Your task to perform on an android device: Open Google Maps and go to "Timeline" Image 0: 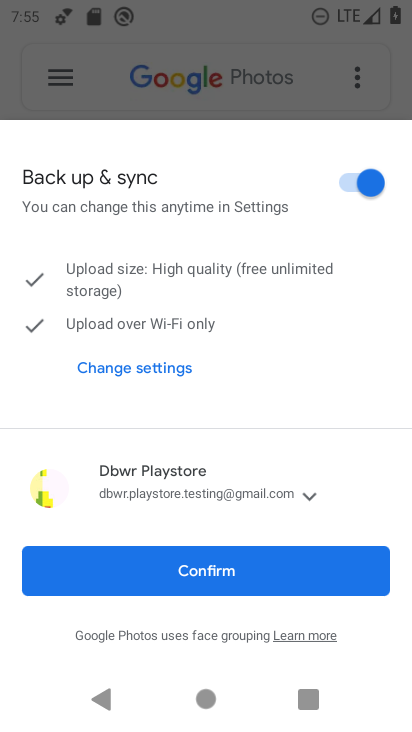
Step 0: click (303, 570)
Your task to perform on an android device: Open Google Maps and go to "Timeline" Image 1: 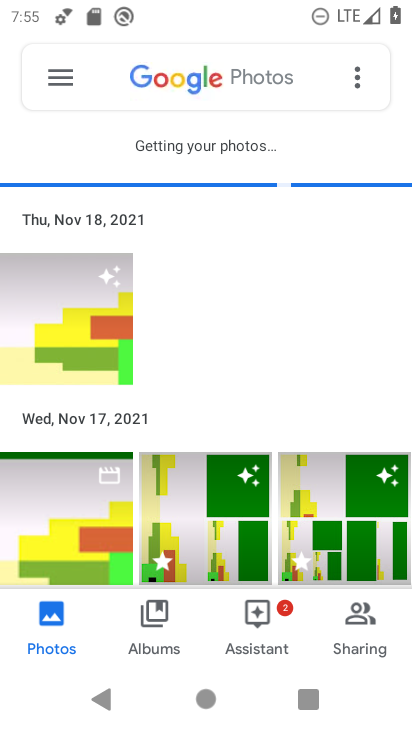
Step 1: press home button
Your task to perform on an android device: Open Google Maps and go to "Timeline" Image 2: 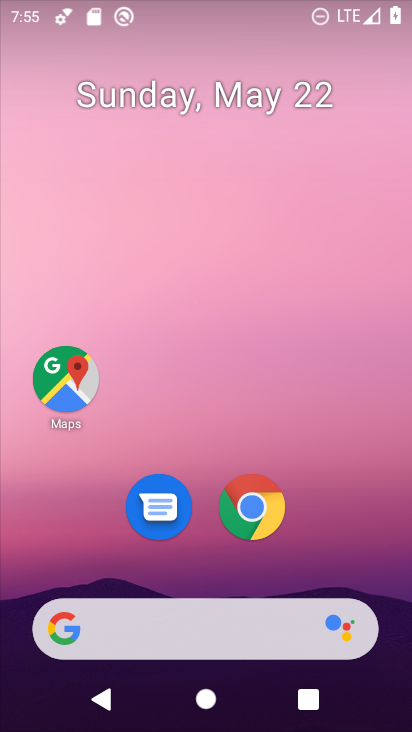
Step 2: click (55, 385)
Your task to perform on an android device: Open Google Maps and go to "Timeline" Image 3: 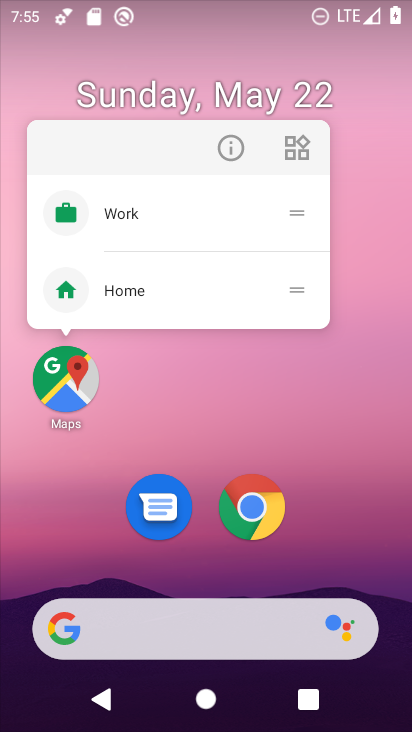
Step 3: click (72, 351)
Your task to perform on an android device: Open Google Maps and go to "Timeline" Image 4: 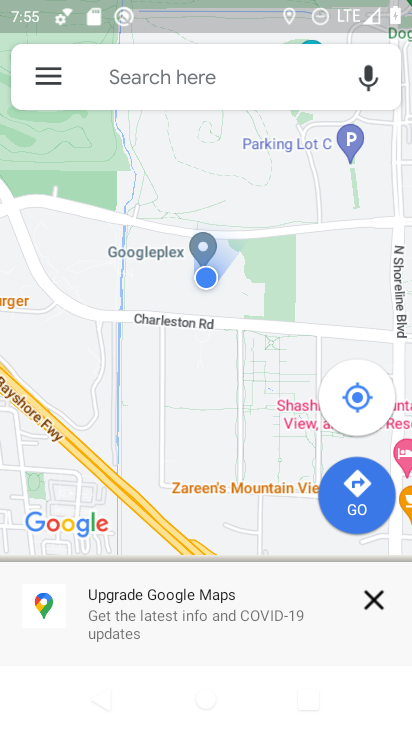
Step 4: click (51, 82)
Your task to perform on an android device: Open Google Maps and go to "Timeline" Image 5: 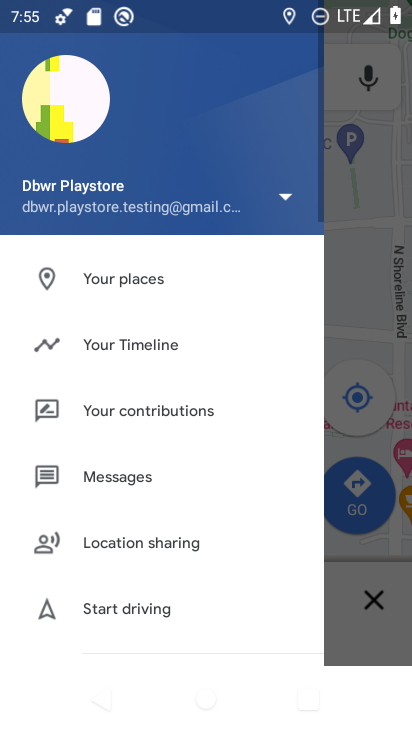
Step 5: click (97, 343)
Your task to perform on an android device: Open Google Maps and go to "Timeline" Image 6: 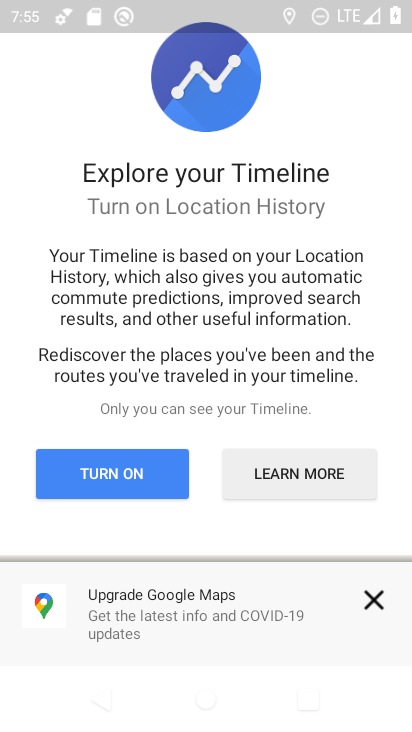
Step 6: click (370, 596)
Your task to perform on an android device: Open Google Maps and go to "Timeline" Image 7: 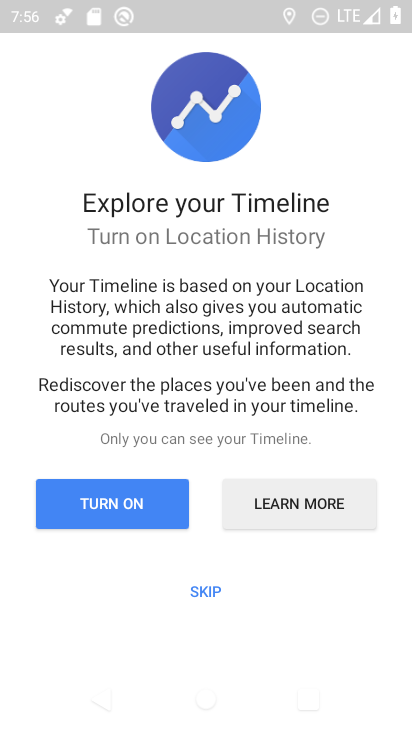
Step 7: click (210, 594)
Your task to perform on an android device: Open Google Maps and go to "Timeline" Image 8: 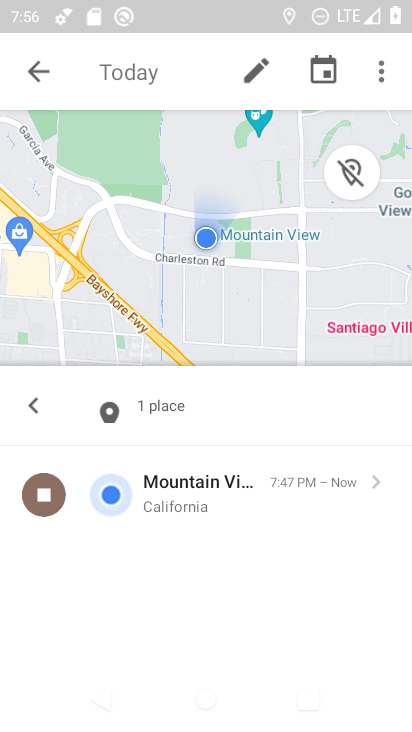
Step 8: task complete